Your task to perform on an android device: turn on the 12-hour format for clock Image 0: 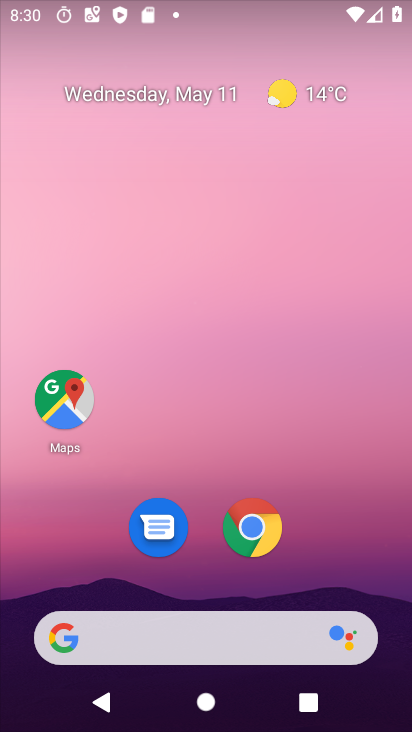
Step 0: drag from (226, 615) to (269, 154)
Your task to perform on an android device: turn on the 12-hour format for clock Image 1: 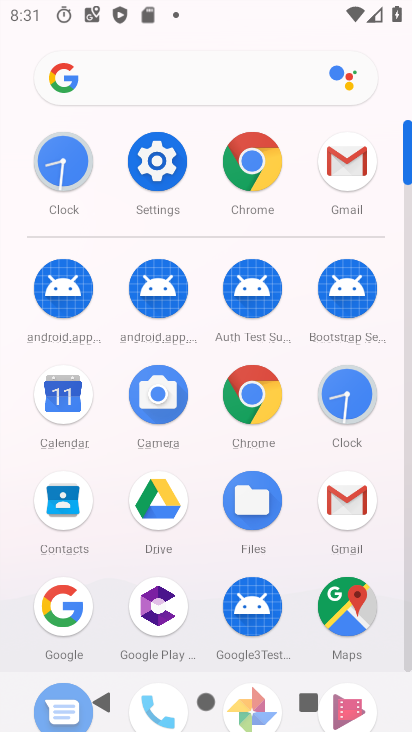
Step 1: click (347, 429)
Your task to perform on an android device: turn on the 12-hour format for clock Image 2: 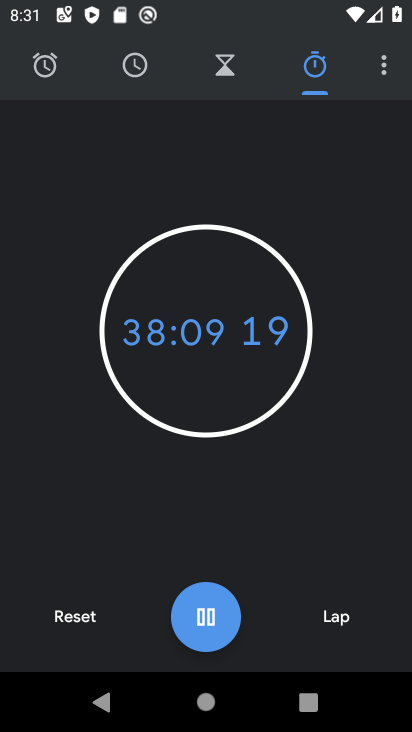
Step 2: click (385, 80)
Your task to perform on an android device: turn on the 12-hour format for clock Image 3: 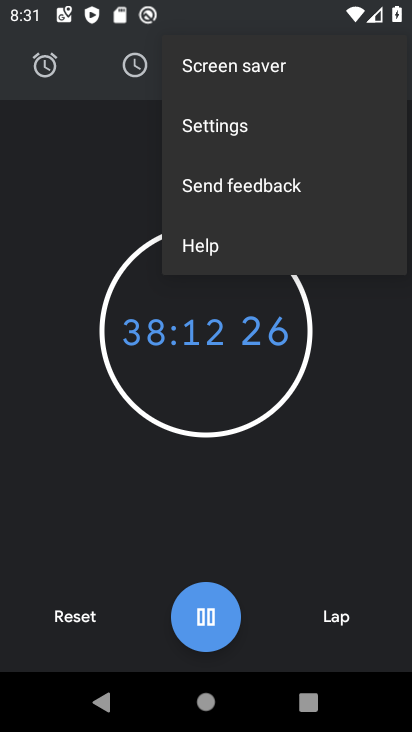
Step 3: click (248, 124)
Your task to perform on an android device: turn on the 12-hour format for clock Image 4: 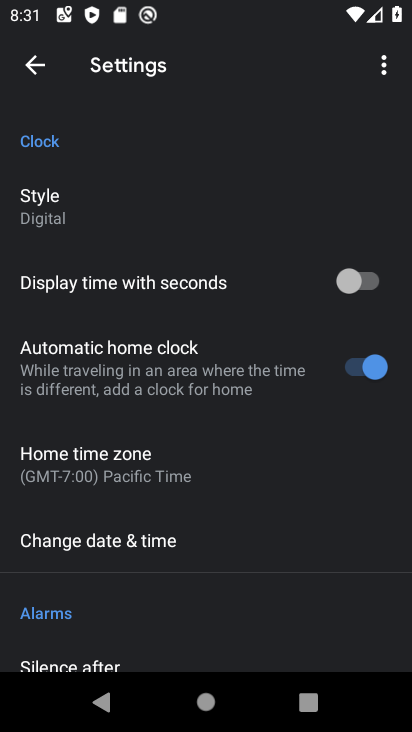
Step 4: drag from (246, 566) to (250, 368)
Your task to perform on an android device: turn on the 12-hour format for clock Image 5: 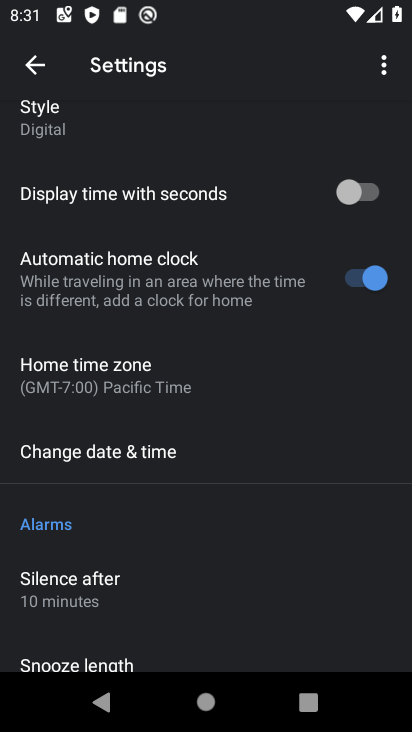
Step 5: click (213, 440)
Your task to perform on an android device: turn on the 12-hour format for clock Image 6: 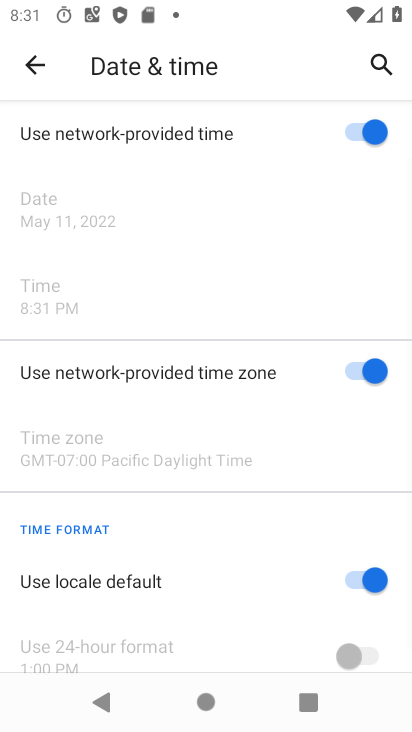
Step 6: task complete